Your task to perform on an android device: change the clock style Image 0: 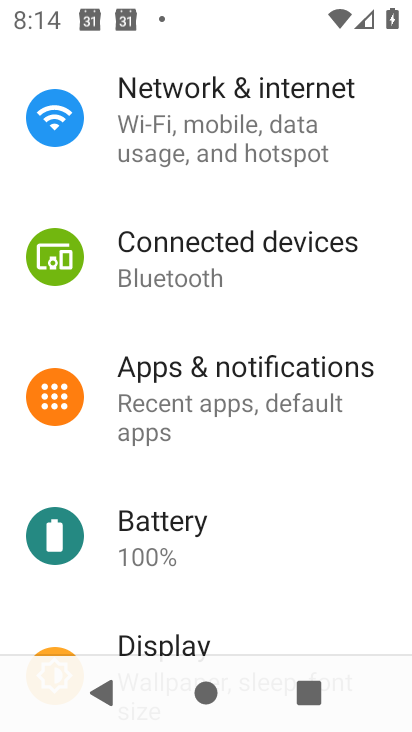
Step 0: press home button
Your task to perform on an android device: change the clock style Image 1: 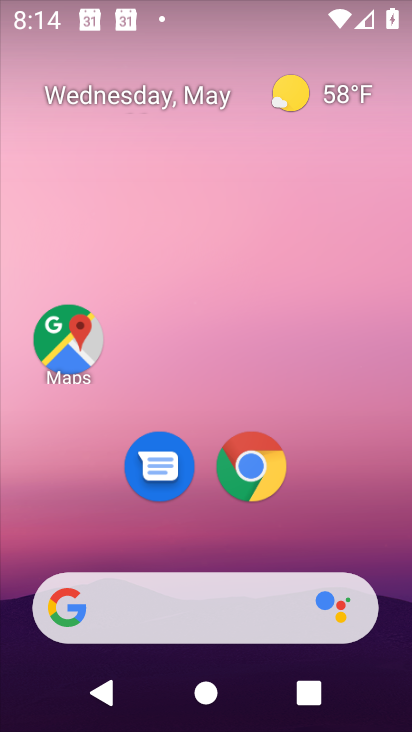
Step 1: drag from (228, 364) to (234, 0)
Your task to perform on an android device: change the clock style Image 2: 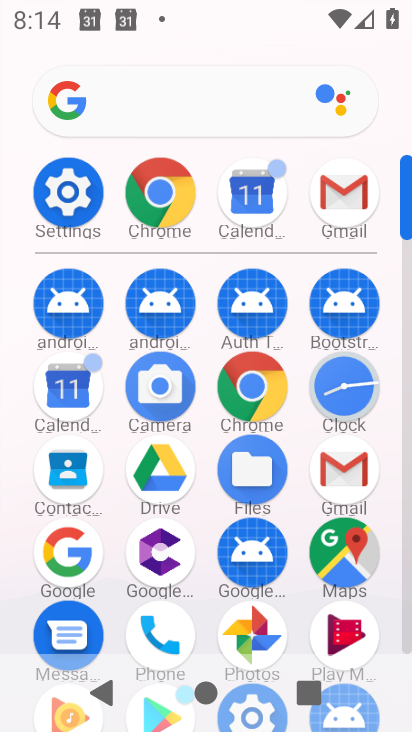
Step 2: click (345, 377)
Your task to perform on an android device: change the clock style Image 3: 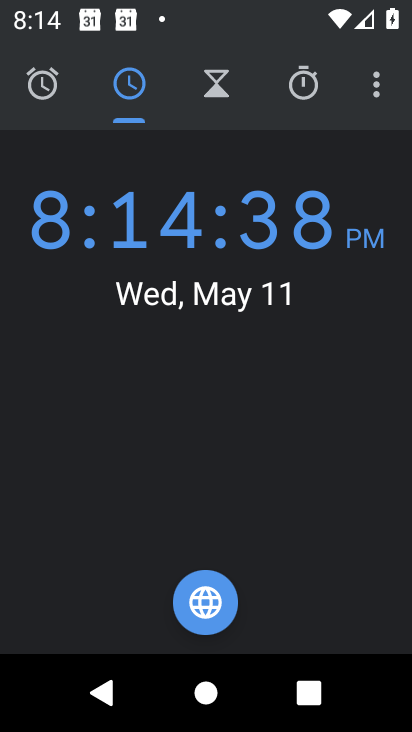
Step 3: click (375, 83)
Your task to perform on an android device: change the clock style Image 4: 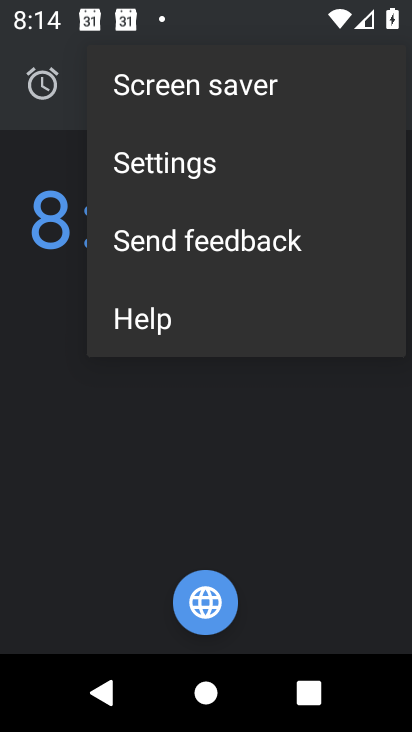
Step 4: click (235, 163)
Your task to perform on an android device: change the clock style Image 5: 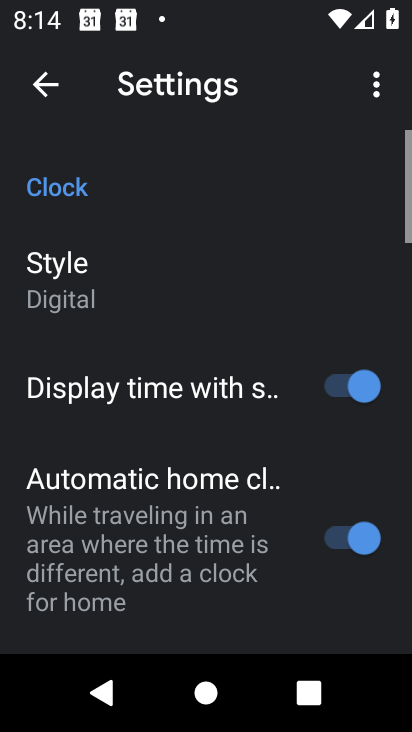
Step 5: click (107, 273)
Your task to perform on an android device: change the clock style Image 6: 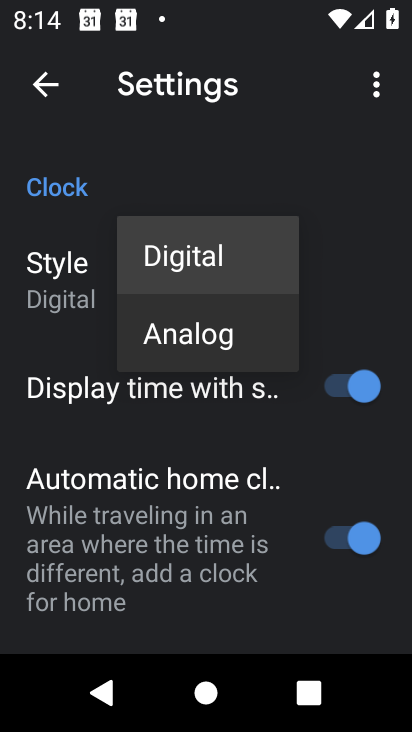
Step 6: click (186, 333)
Your task to perform on an android device: change the clock style Image 7: 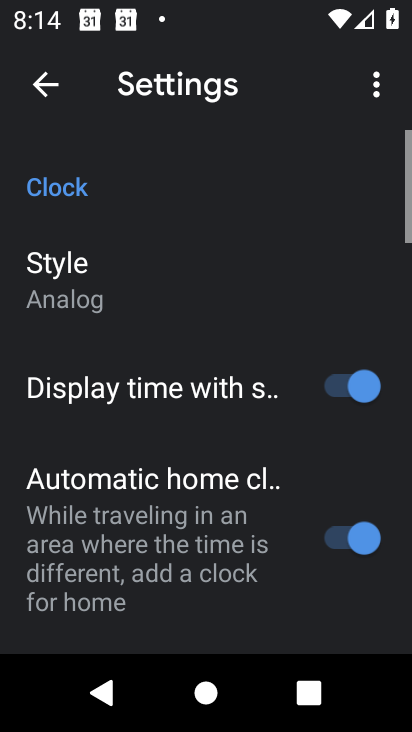
Step 7: task complete